Your task to perform on an android device: Open the calendar and show me this week's events? Image 0: 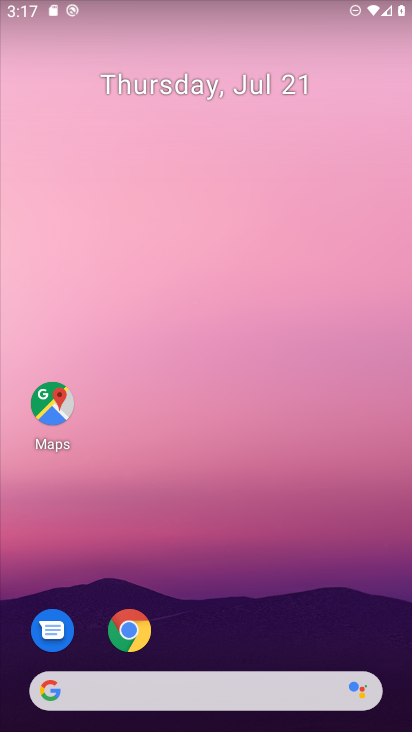
Step 0: drag from (217, 638) to (285, 9)
Your task to perform on an android device: Open the calendar and show me this week's events? Image 1: 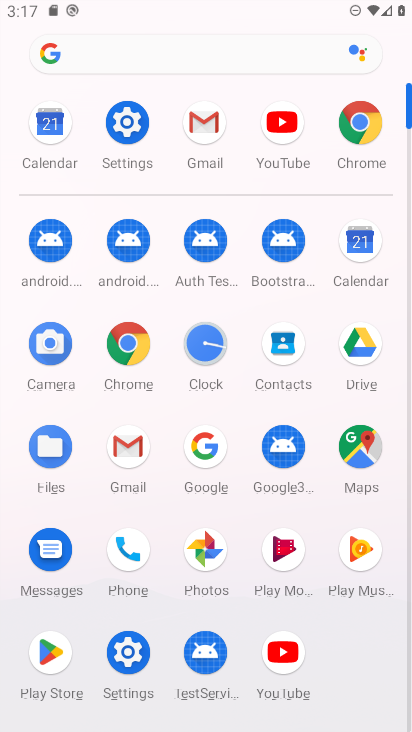
Step 1: click (356, 259)
Your task to perform on an android device: Open the calendar and show me this week's events? Image 2: 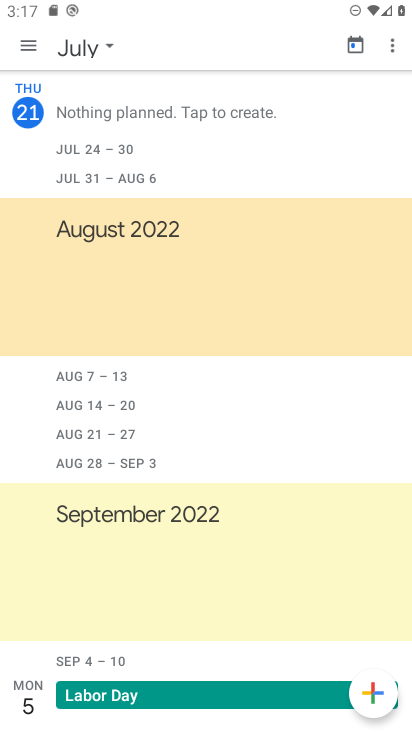
Step 2: click (98, 51)
Your task to perform on an android device: Open the calendar and show me this week's events? Image 3: 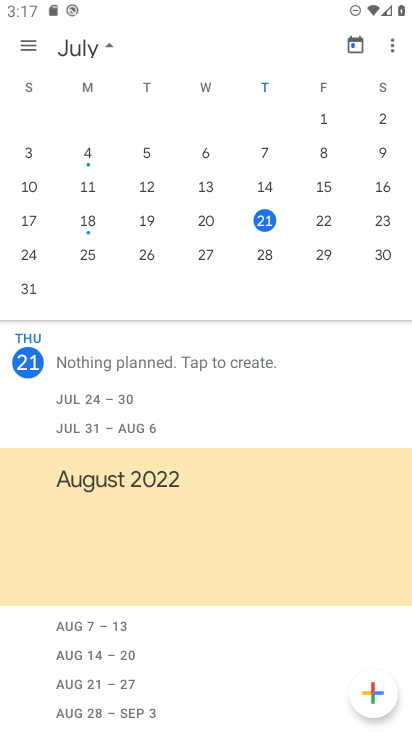
Step 3: click (265, 222)
Your task to perform on an android device: Open the calendar and show me this week's events? Image 4: 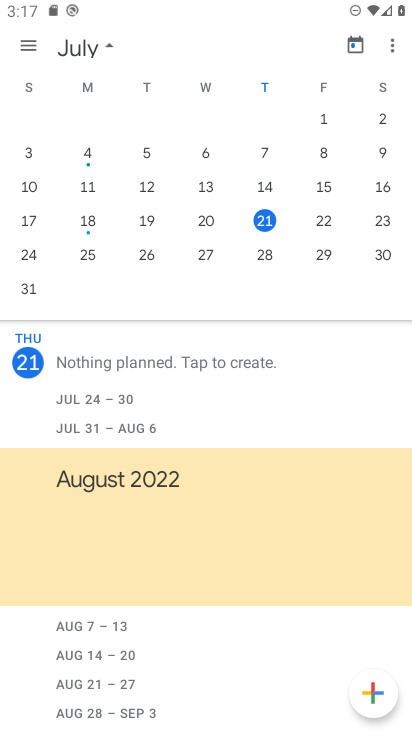
Step 4: task complete